Your task to perform on an android device: change timer sound Image 0: 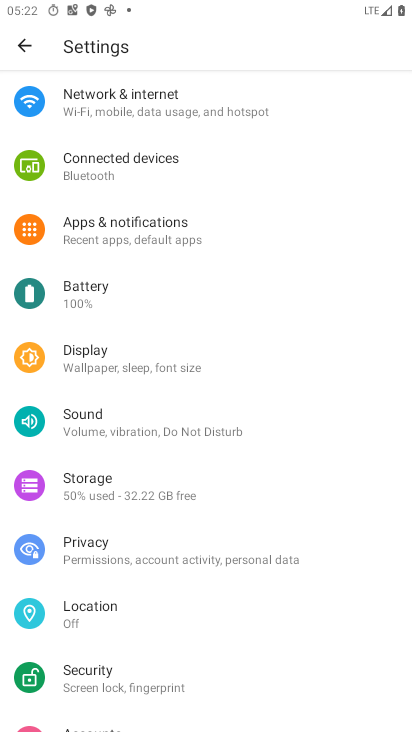
Step 0: press home button
Your task to perform on an android device: change timer sound Image 1: 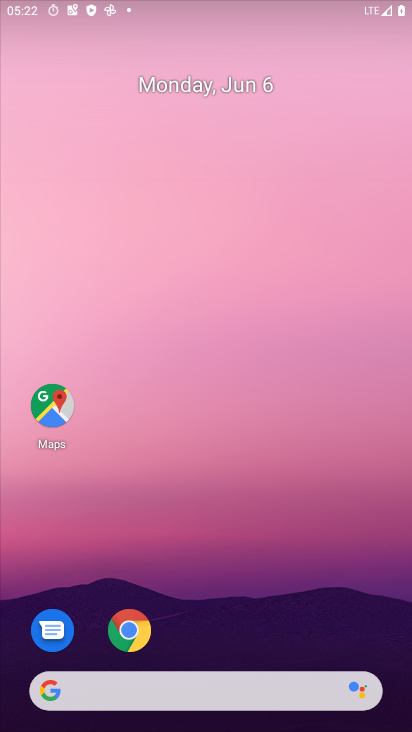
Step 1: drag from (284, 616) to (318, 4)
Your task to perform on an android device: change timer sound Image 2: 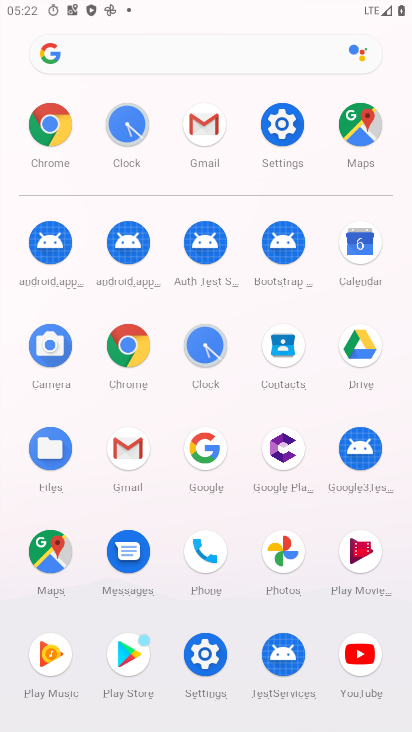
Step 2: click (201, 641)
Your task to perform on an android device: change timer sound Image 3: 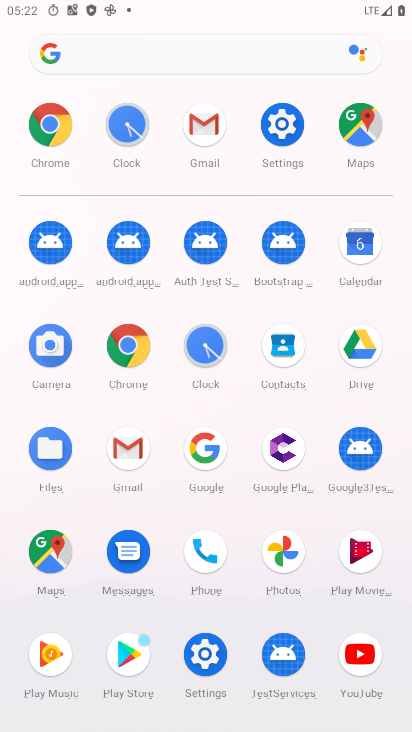
Step 3: click (201, 652)
Your task to perform on an android device: change timer sound Image 4: 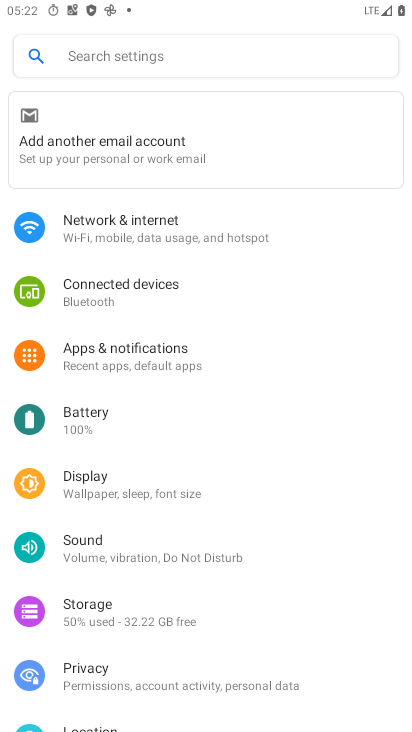
Step 4: click (94, 551)
Your task to perform on an android device: change timer sound Image 5: 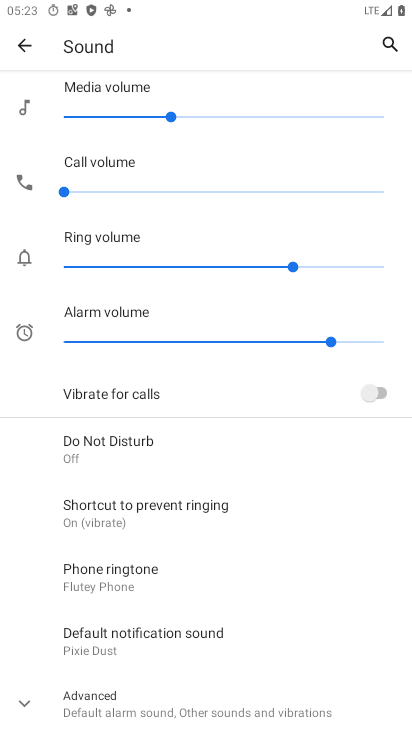
Step 5: task complete